Your task to perform on an android device: all mails in gmail Image 0: 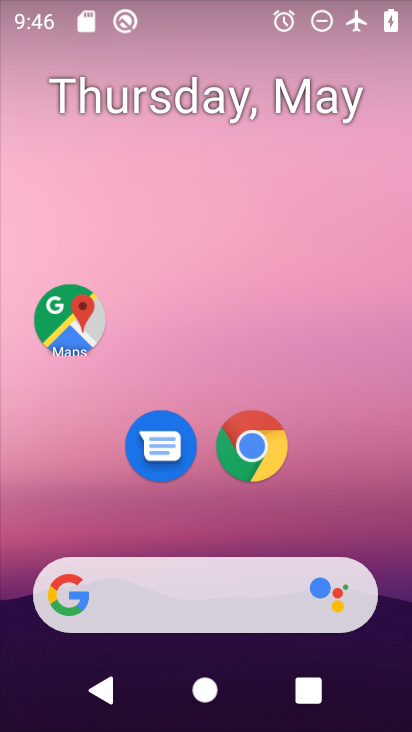
Step 0: press home button
Your task to perform on an android device: all mails in gmail Image 1: 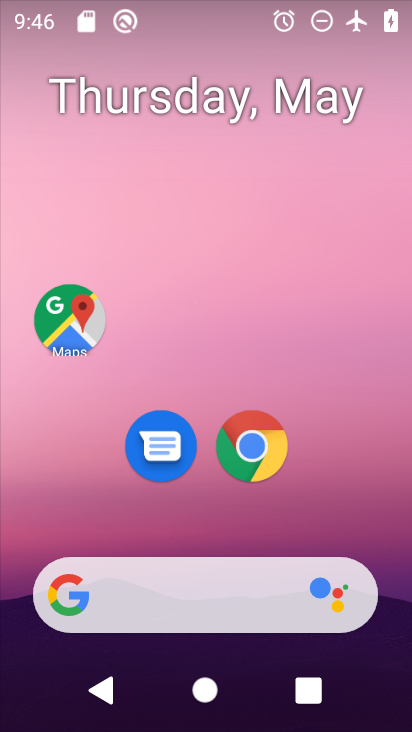
Step 1: drag from (337, 506) to (369, 162)
Your task to perform on an android device: all mails in gmail Image 2: 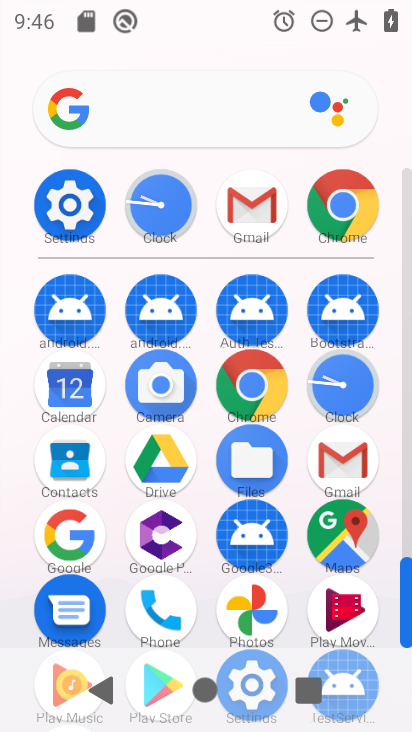
Step 2: click (330, 466)
Your task to perform on an android device: all mails in gmail Image 3: 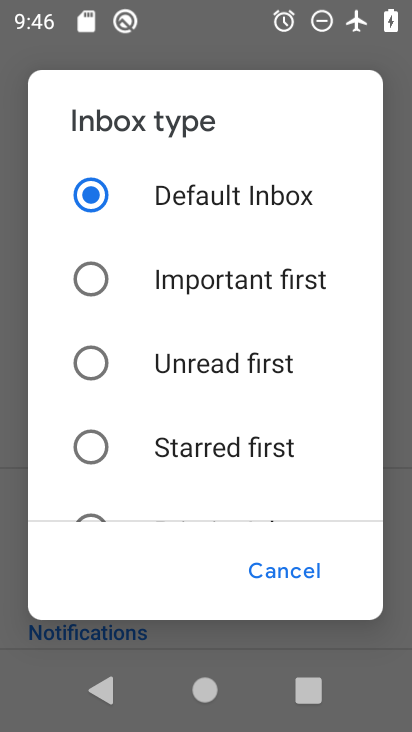
Step 3: click (264, 572)
Your task to perform on an android device: all mails in gmail Image 4: 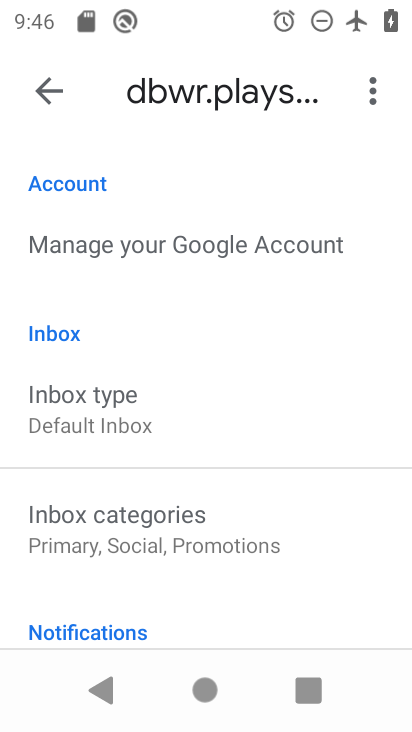
Step 4: click (56, 83)
Your task to perform on an android device: all mails in gmail Image 5: 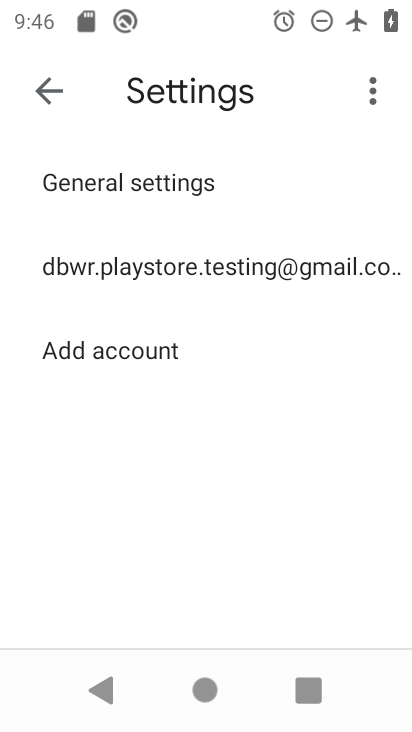
Step 5: click (55, 84)
Your task to perform on an android device: all mails in gmail Image 6: 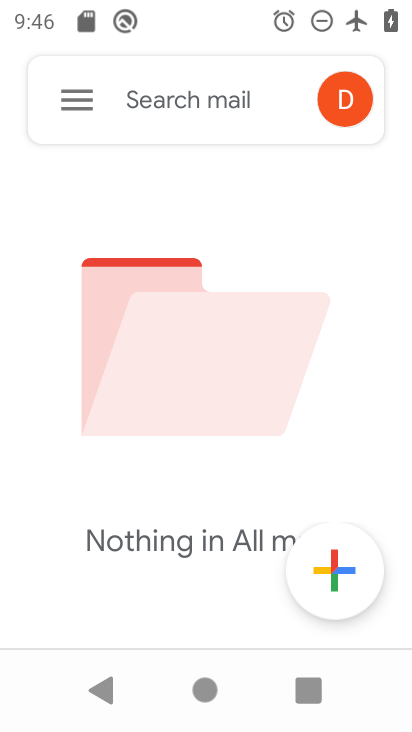
Step 6: click (55, 84)
Your task to perform on an android device: all mails in gmail Image 7: 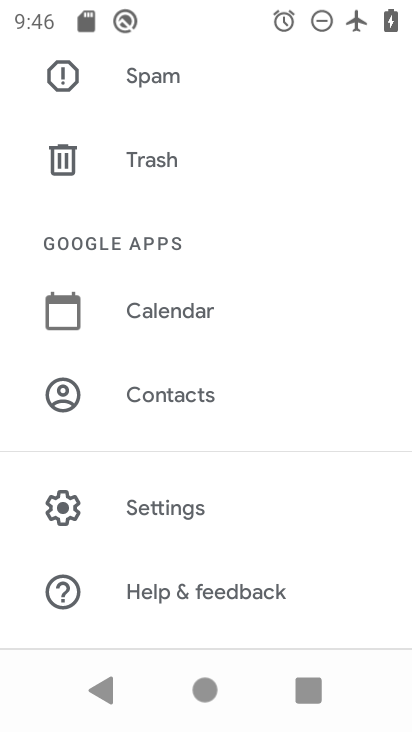
Step 7: drag from (182, 147) to (182, 404)
Your task to perform on an android device: all mails in gmail Image 8: 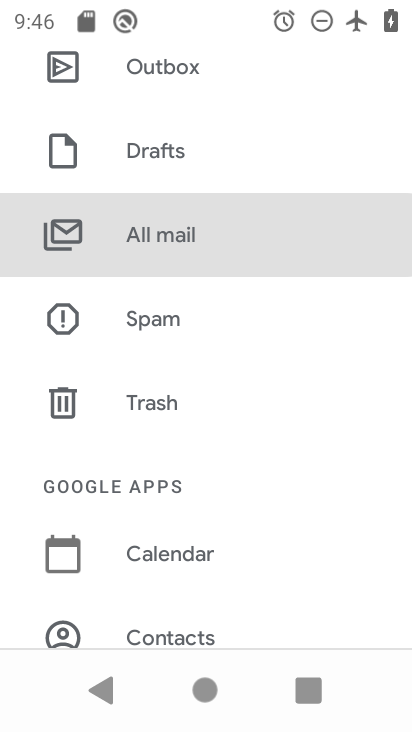
Step 8: click (180, 251)
Your task to perform on an android device: all mails in gmail Image 9: 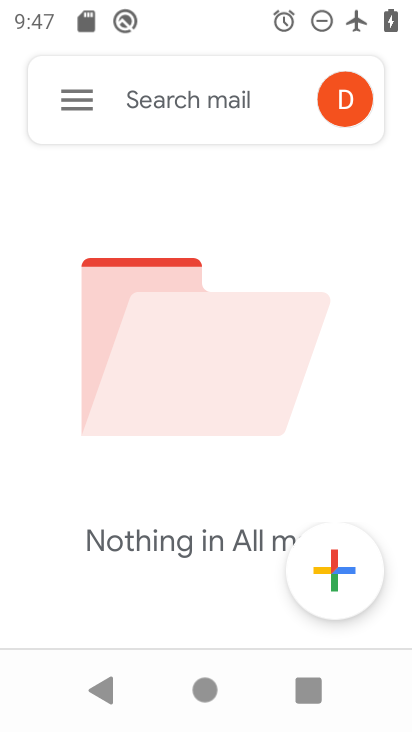
Step 9: task complete